Your task to perform on an android device: turn on improve location accuracy Image 0: 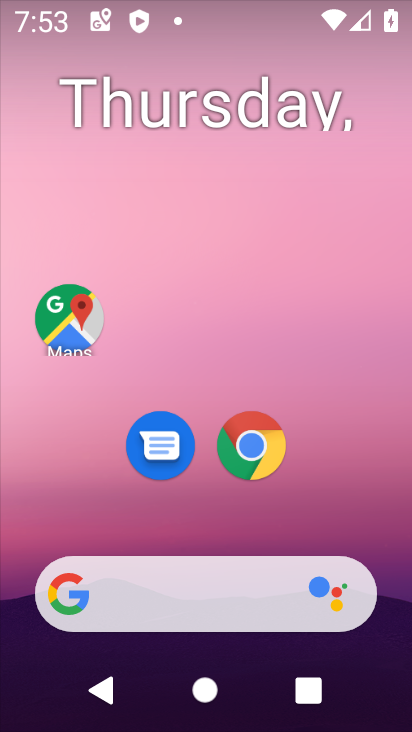
Step 0: drag from (391, 545) to (229, 21)
Your task to perform on an android device: turn on improve location accuracy Image 1: 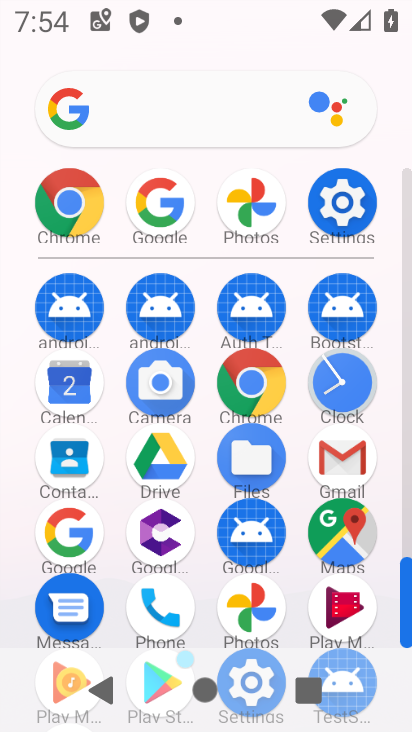
Step 1: click (336, 215)
Your task to perform on an android device: turn on improve location accuracy Image 2: 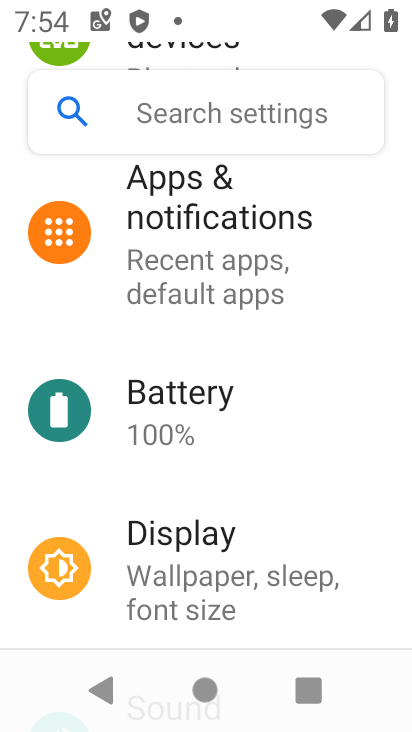
Step 2: drag from (199, 434) to (203, 131)
Your task to perform on an android device: turn on improve location accuracy Image 3: 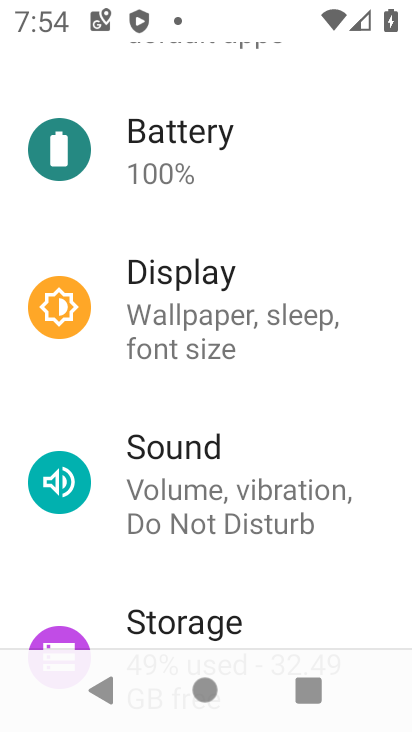
Step 3: click (180, 575)
Your task to perform on an android device: turn on improve location accuracy Image 4: 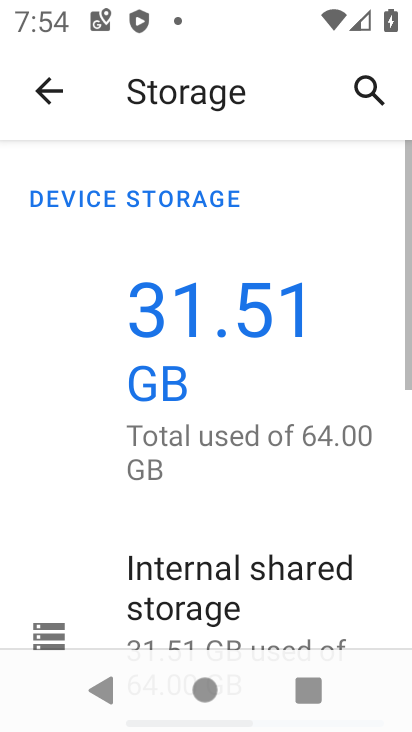
Step 4: click (207, 151)
Your task to perform on an android device: turn on improve location accuracy Image 5: 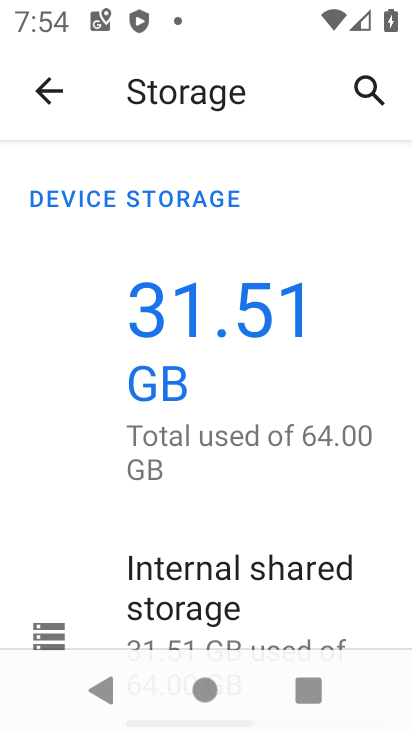
Step 5: press back button
Your task to perform on an android device: turn on improve location accuracy Image 6: 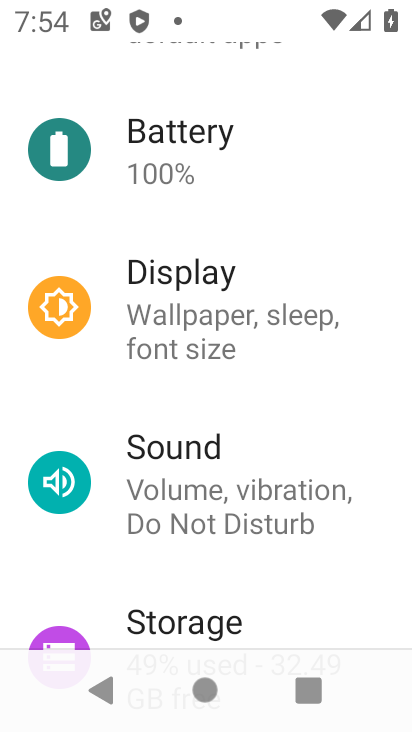
Step 6: drag from (273, 540) to (272, 365)
Your task to perform on an android device: turn on improve location accuracy Image 7: 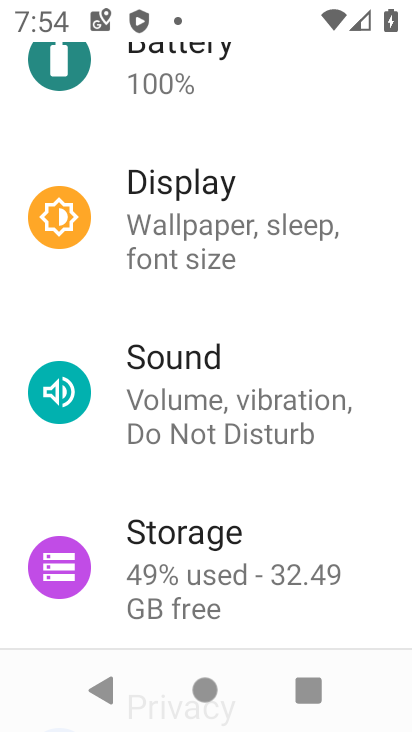
Step 7: drag from (261, 155) to (232, 1)
Your task to perform on an android device: turn on improve location accuracy Image 8: 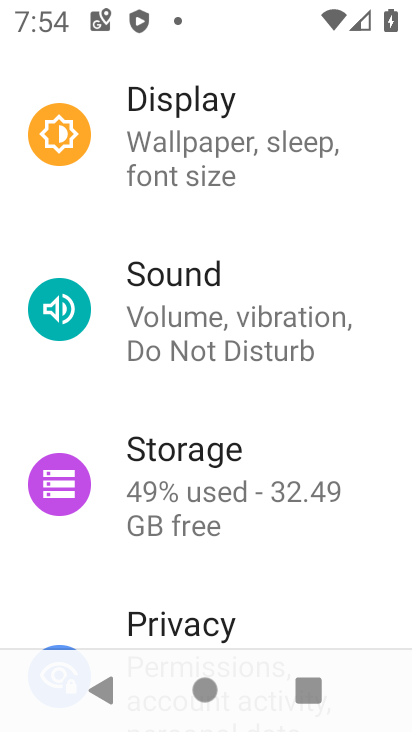
Step 8: drag from (183, 474) to (167, 52)
Your task to perform on an android device: turn on improve location accuracy Image 9: 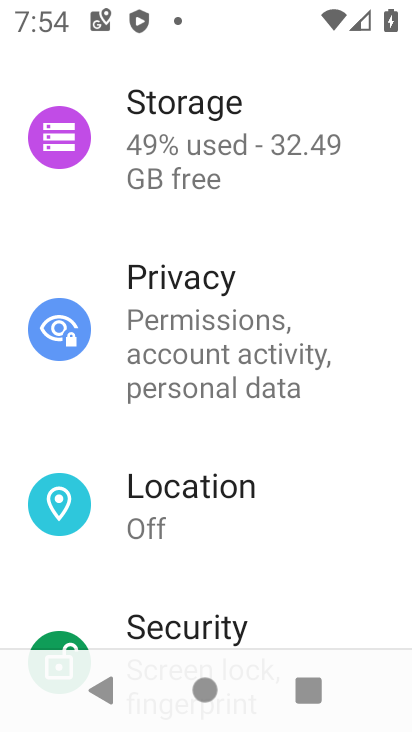
Step 9: click (201, 476)
Your task to perform on an android device: turn on improve location accuracy Image 10: 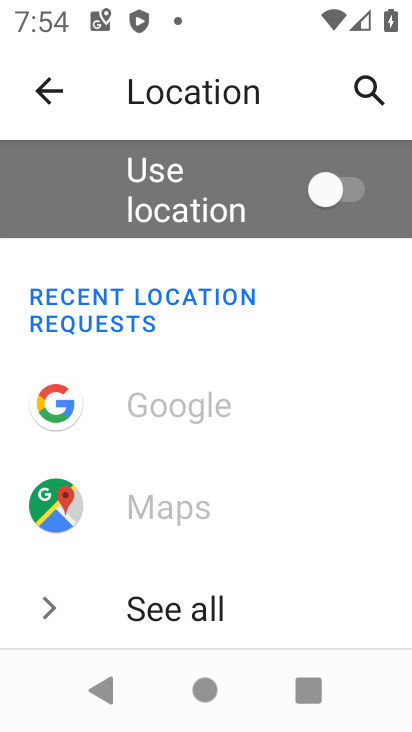
Step 10: drag from (251, 602) to (240, 59)
Your task to perform on an android device: turn on improve location accuracy Image 11: 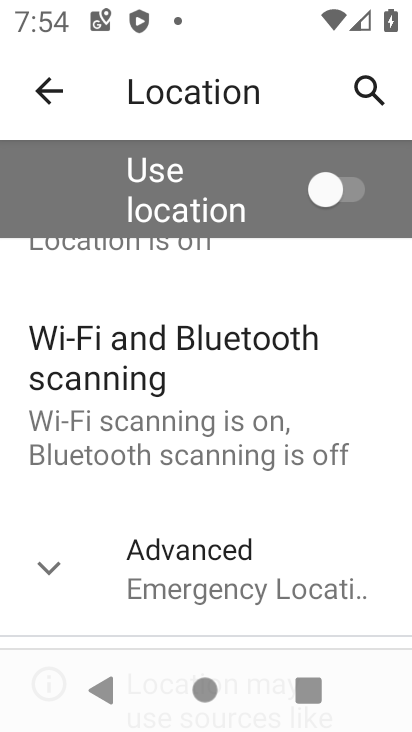
Step 11: click (54, 579)
Your task to perform on an android device: turn on improve location accuracy Image 12: 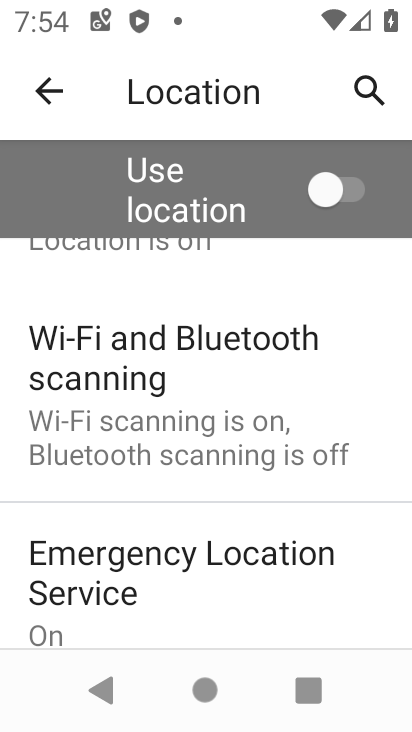
Step 12: drag from (150, 605) to (201, 191)
Your task to perform on an android device: turn on improve location accuracy Image 13: 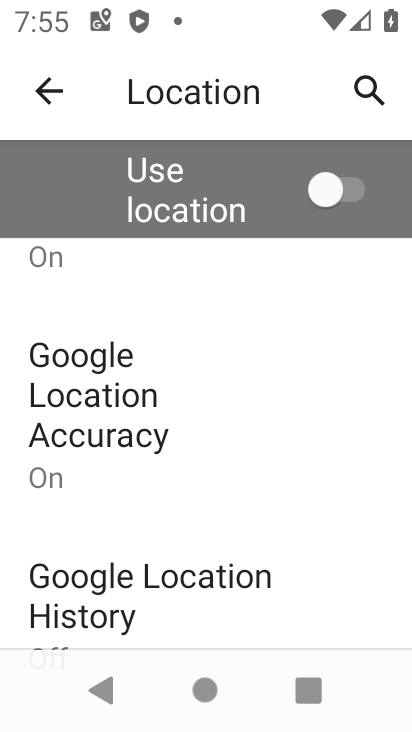
Step 13: click (108, 408)
Your task to perform on an android device: turn on improve location accuracy Image 14: 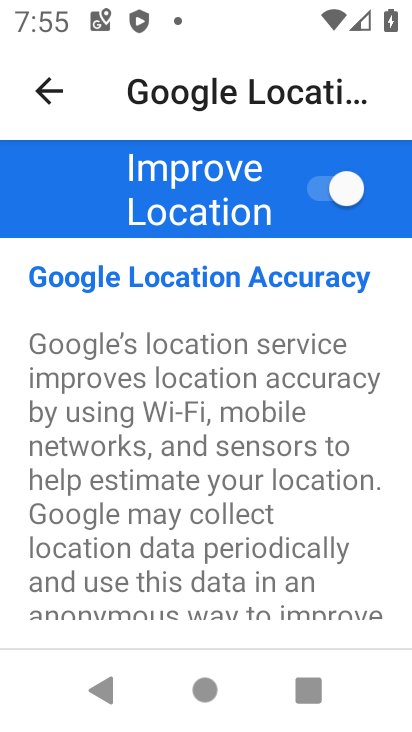
Step 14: task complete